Your task to perform on an android device: make emails show in primary in the gmail app Image 0: 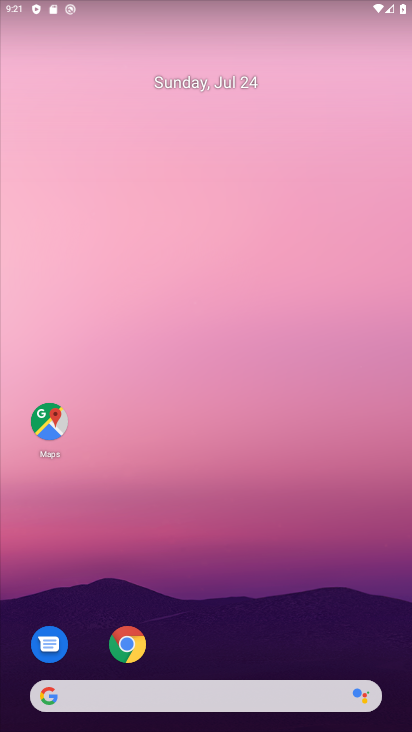
Step 0: drag from (226, 674) to (226, 209)
Your task to perform on an android device: make emails show in primary in the gmail app Image 1: 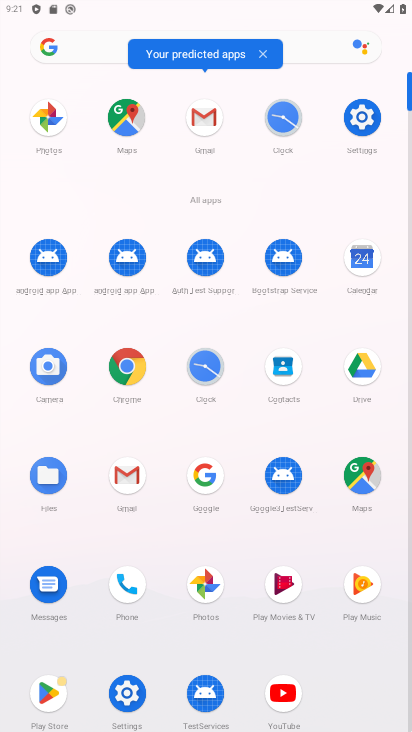
Step 1: click (208, 115)
Your task to perform on an android device: make emails show in primary in the gmail app Image 2: 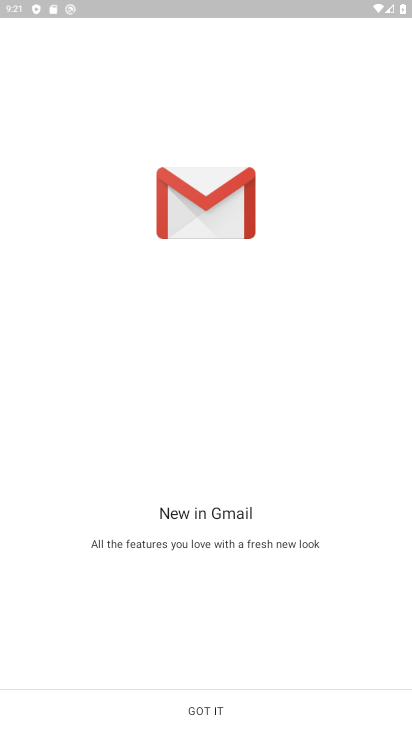
Step 2: click (183, 716)
Your task to perform on an android device: make emails show in primary in the gmail app Image 3: 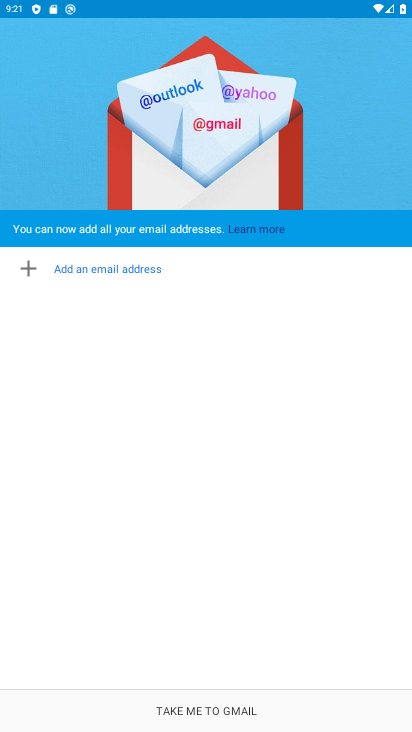
Step 3: click (183, 716)
Your task to perform on an android device: make emails show in primary in the gmail app Image 4: 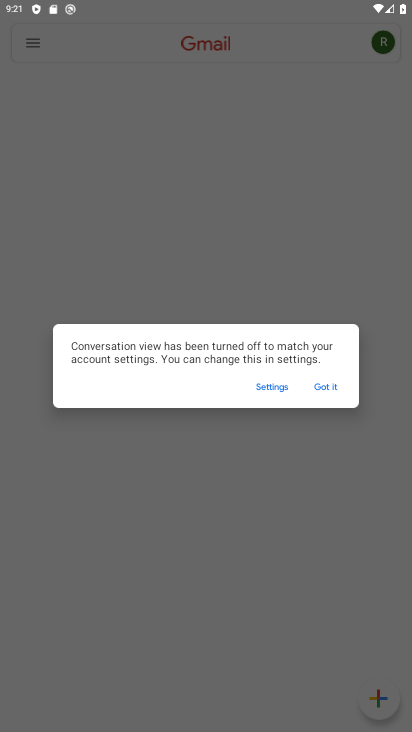
Step 4: click (315, 390)
Your task to perform on an android device: make emails show in primary in the gmail app Image 5: 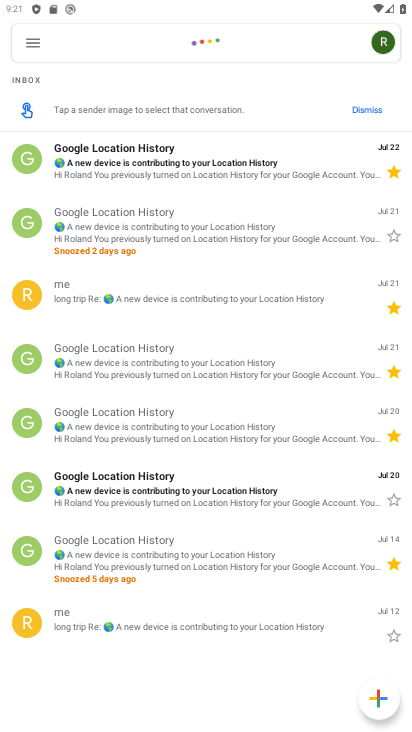
Step 5: click (30, 44)
Your task to perform on an android device: make emails show in primary in the gmail app Image 6: 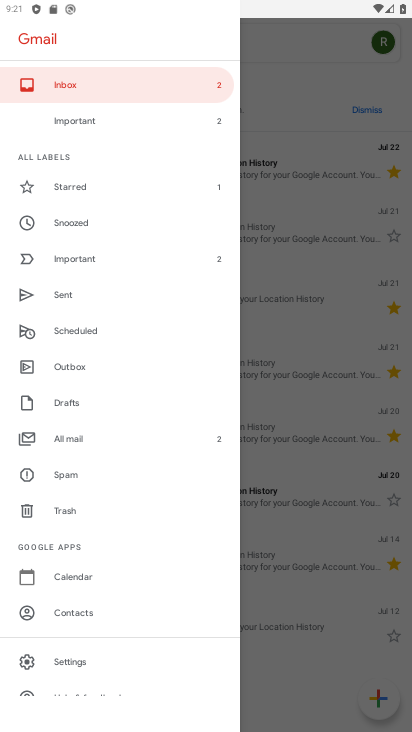
Step 6: click (68, 658)
Your task to perform on an android device: make emails show in primary in the gmail app Image 7: 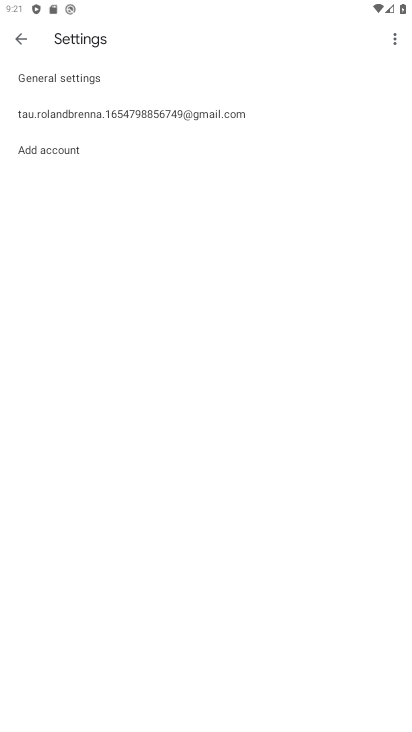
Step 7: click (48, 116)
Your task to perform on an android device: make emails show in primary in the gmail app Image 8: 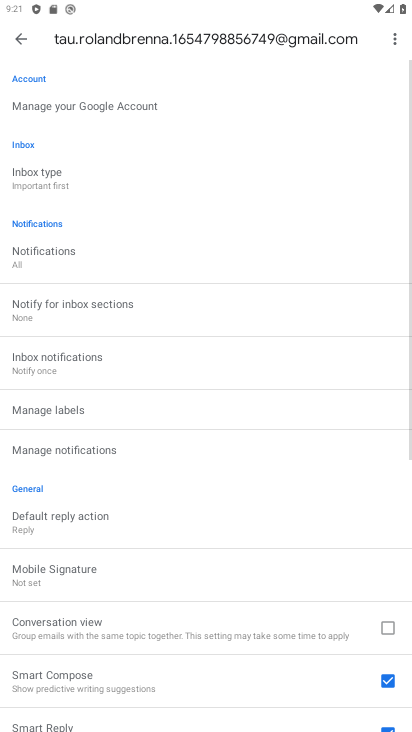
Step 8: click (35, 176)
Your task to perform on an android device: make emails show in primary in the gmail app Image 9: 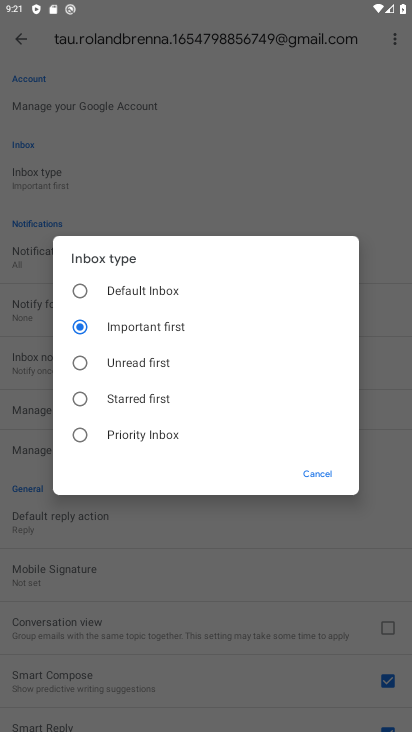
Step 9: click (121, 289)
Your task to perform on an android device: make emails show in primary in the gmail app Image 10: 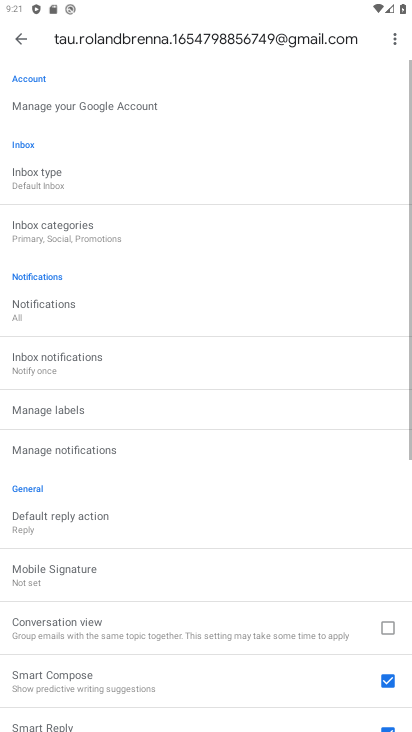
Step 10: click (75, 236)
Your task to perform on an android device: make emails show in primary in the gmail app Image 11: 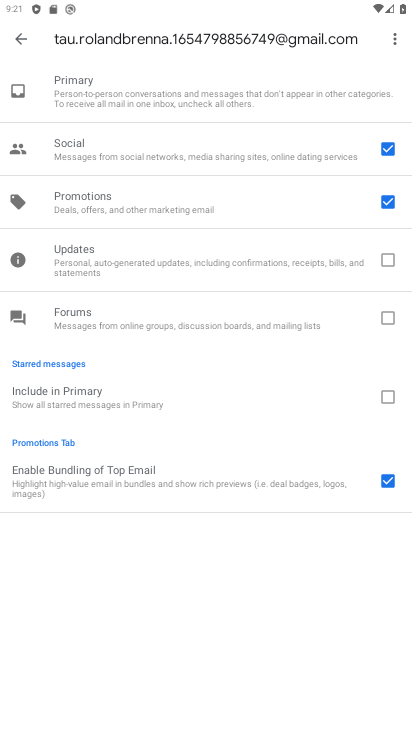
Step 11: click (387, 198)
Your task to perform on an android device: make emails show in primary in the gmail app Image 12: 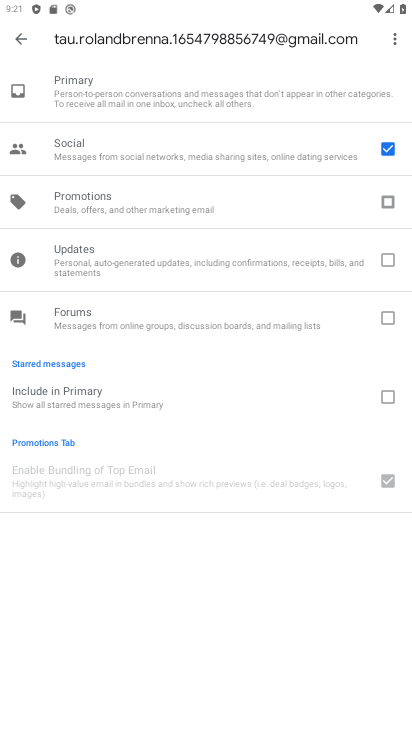
Step 12: click (381, 154)
Your task to perform on an android device: make emails show in primary in the gmail app Image 13: 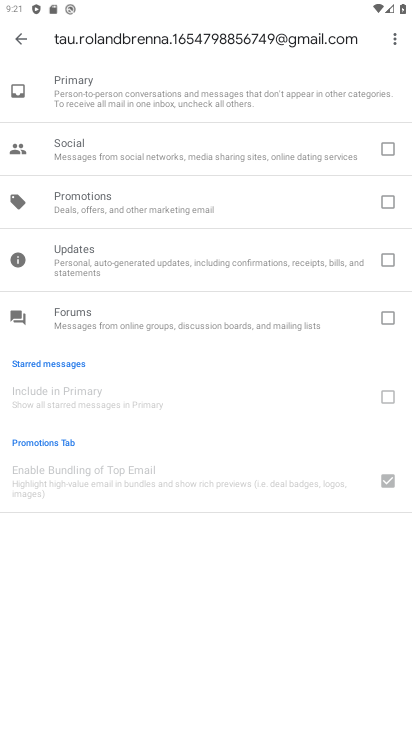
Step 13: click (25, 34)
Your task to perform on an android device: make emails show in primary in the gmail app Image 14: 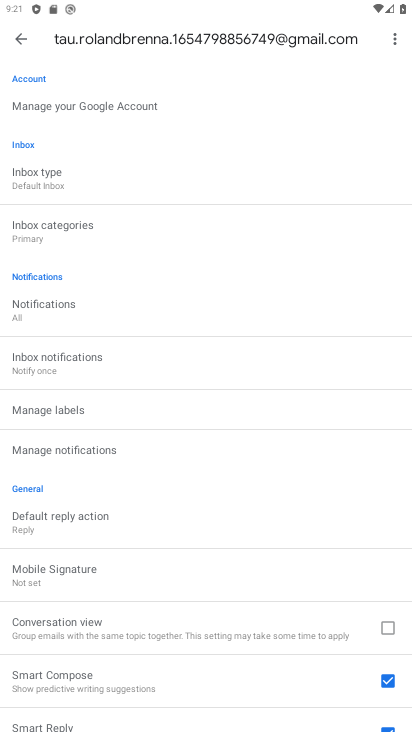
Step 14: task complete